Your task to perform on an android device: Go to settings Image 0: 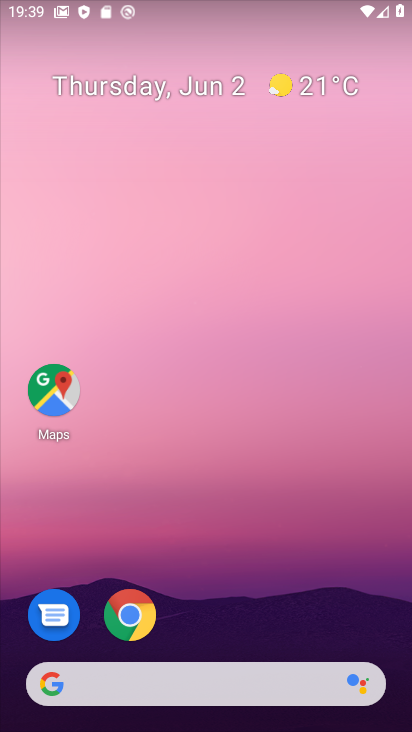
Step 0: drag from (263, 627) to (253, 166)
Your task to perform on an android device: Go to settings Image 1: 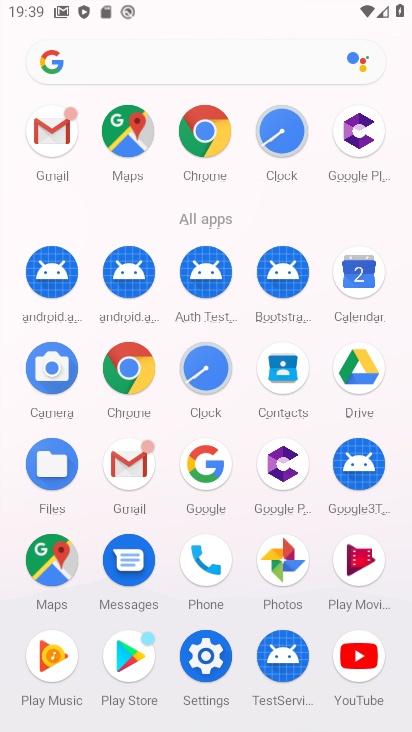
Step 1: click (211, 652)
Your task to perform on an android device: Go to settings Image 2: 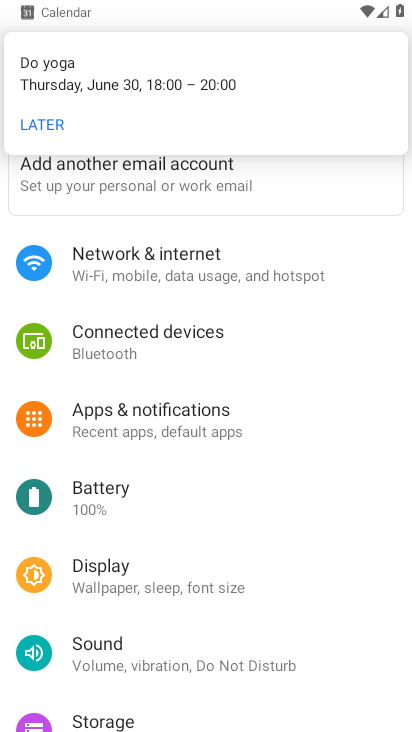
Step 2: task complete